Your task to perform on an android device: Open Android settings Image 0: 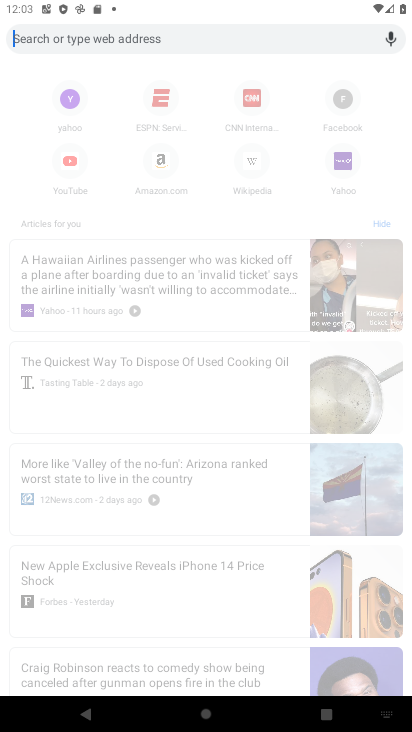
Step 0: press home button
Your task to perform on an android device: Open Android settings Image 1: 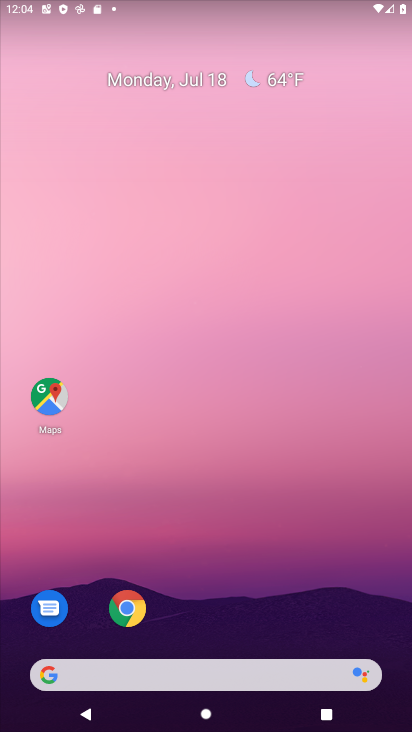
Step 1: drag from (370, 638) to (28, 254)
Your task to perform on an android device: Open Android settings Image 2: 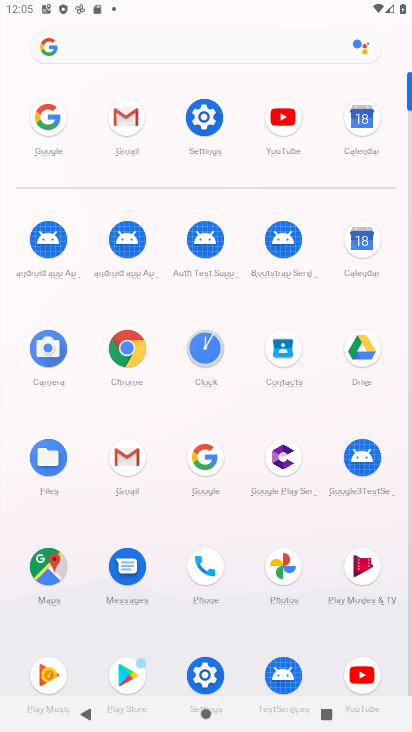
Step 2: click (206, 683)
Your task to perform on an android device: Open Android settings Image 3: 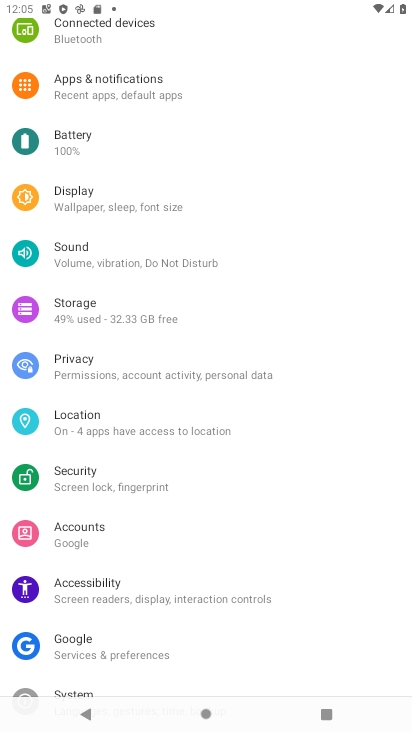
Step 3: task complete